Your task to perform on an android device: What's the weather going to be this weekend? Image 0: 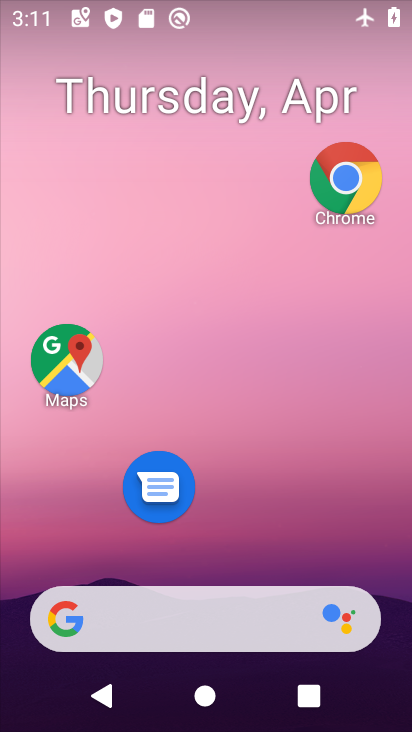
Step 0: click (328, 229)
Your task to perform on an android device: What's the weather going to be this weekend? Image 1: 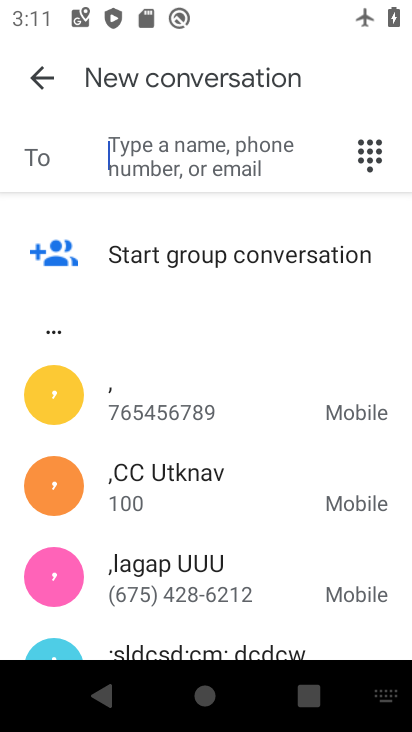
Step 1: press home button
Your task to perform on an android device: What's the weather going to be this weekend? Image 2: 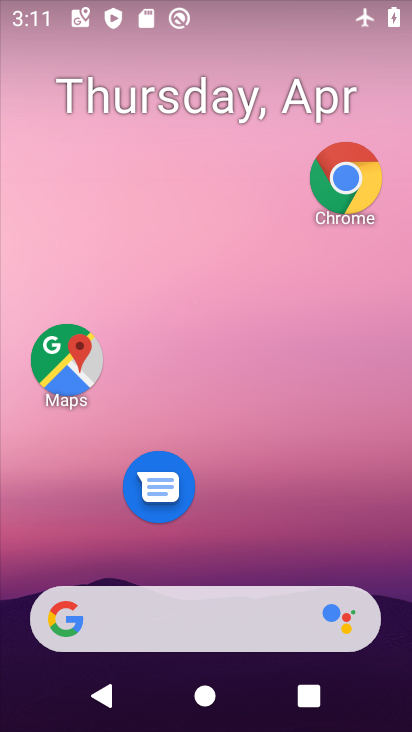
Step 2: drag from (299, 568) to (331, 365)
Your task to perform on an android device: What's the weather going to be this weekend? Image 3: 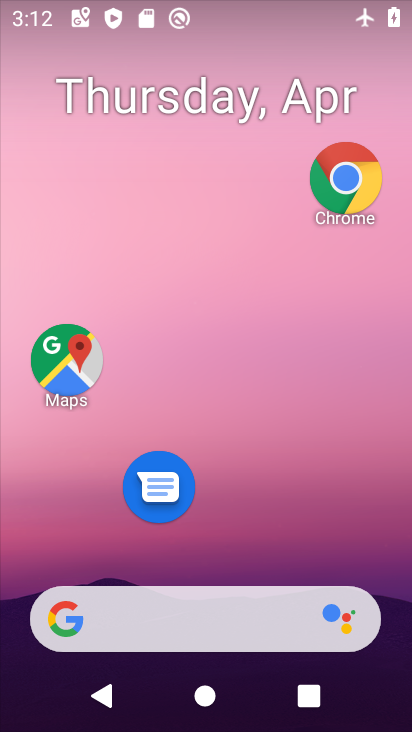
Step 3: drag from (257, 564) to (248, 456)
Your task to perform on an android device: What's the weather going to be this weekend? Image 4: 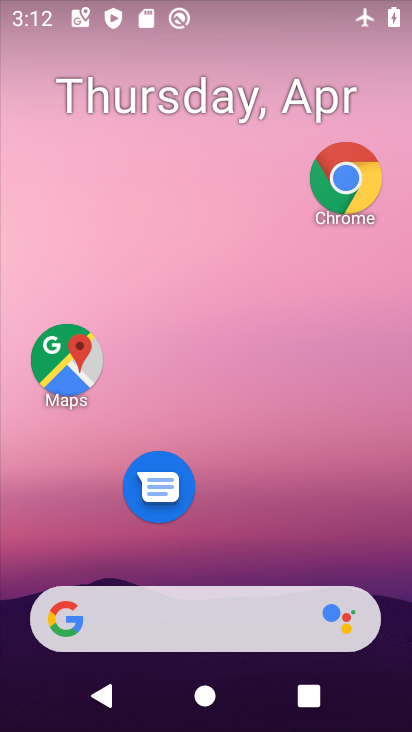
Step 4: drag from (239, 578) to (234, 353)
Your task to perform on an android device: What's the weather going to be this weekend? Image 5: 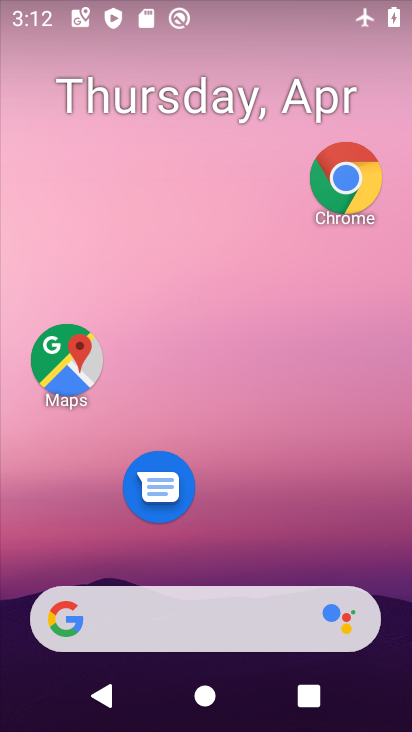
Step 5: drag from (231, 577) to (239, 430)
Your task to perform on an android device: What's the weather going to be this weekend? Image 6: 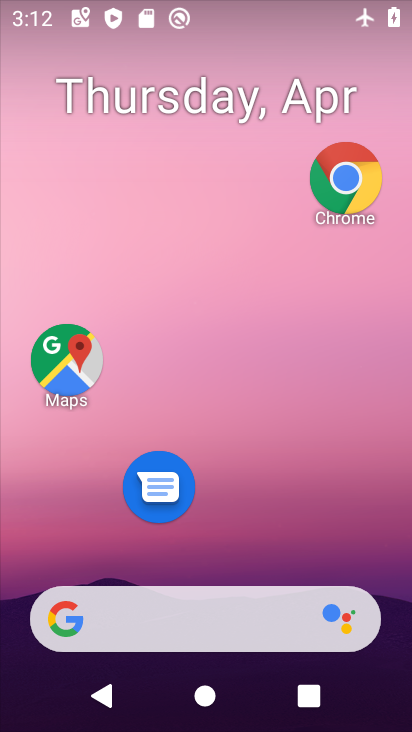
Step 6: drag from (287, 551) to (242, 210)
Your task to perform on an android device: What's the weather going to be this weekend? Image 7: 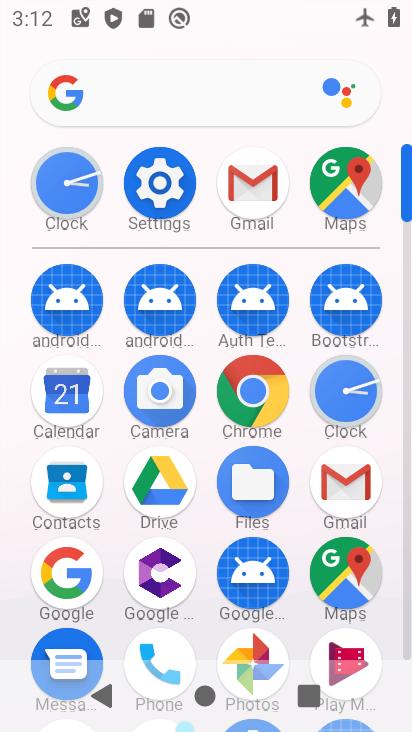
Step 7: click (76, 579)
Your task to perform on an android device: What's the weather going to be this weekend? Image 8: 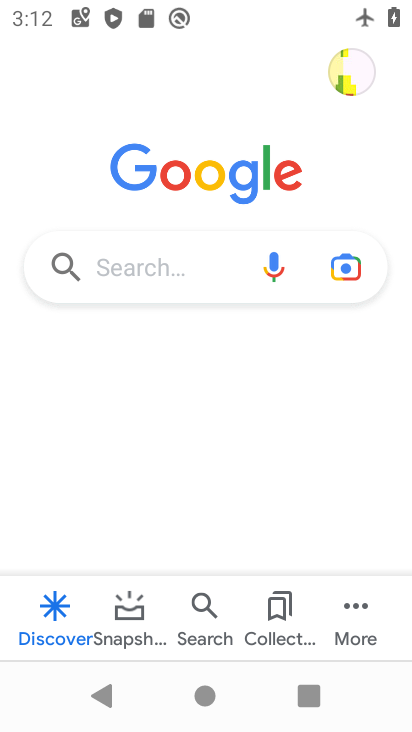
Step 8: click (158, 281)
Your task to perform on an android device: What's the weather going to be this weekend? Image 9: 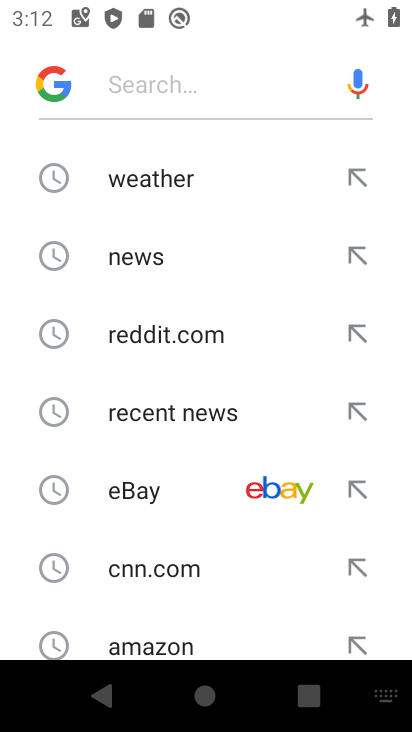
Step 9: type "saturday weather"
Your task to perform on an android device: What's the weather going to be this weekend? Image 10: 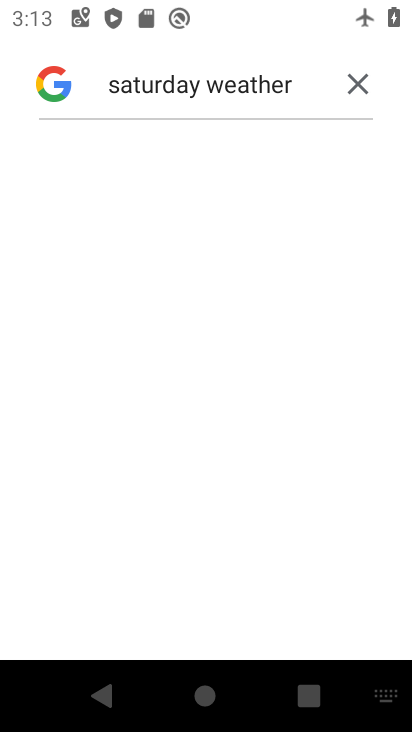
Step 10: task complete